Your task to perform on an android device: turn off airplane mode Image 0: 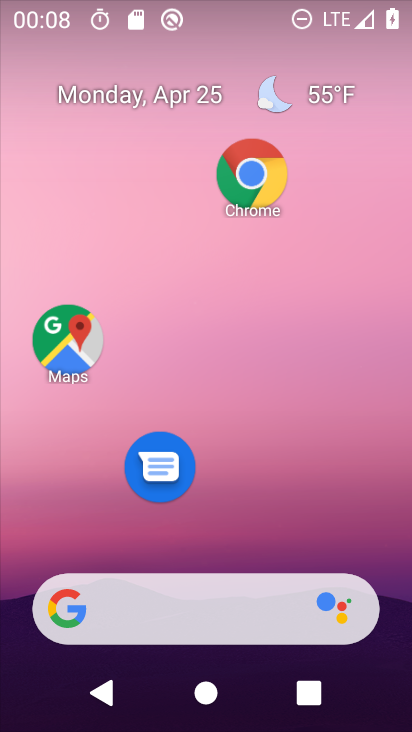
Step 0: drag from (266, 505) to (352, 108)
Your task to perform on an android device: turn off airplane mode Image 1: 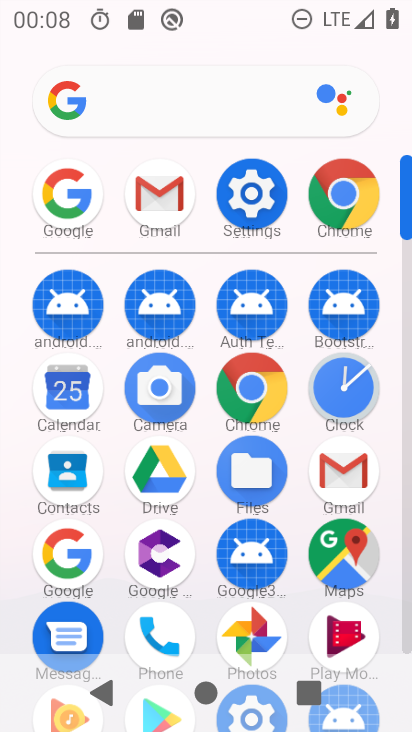
Step 1: click (262, 188)
Your task to perform on an android device: turn off airplane mode Image 2: 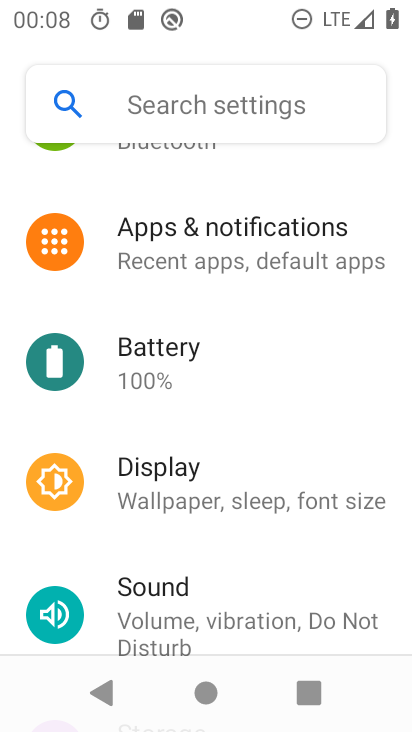
Step 2: drag from (258, 251) to (262, 550)
Your task to perform on an android device: turn off airplane mode Image 3: 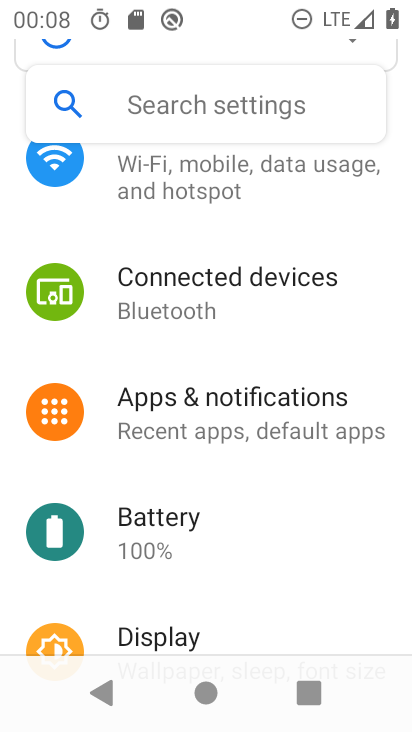
Step 3: click (157, 181)
Your task to perform on an android device: turn off airplane mode Image 4: 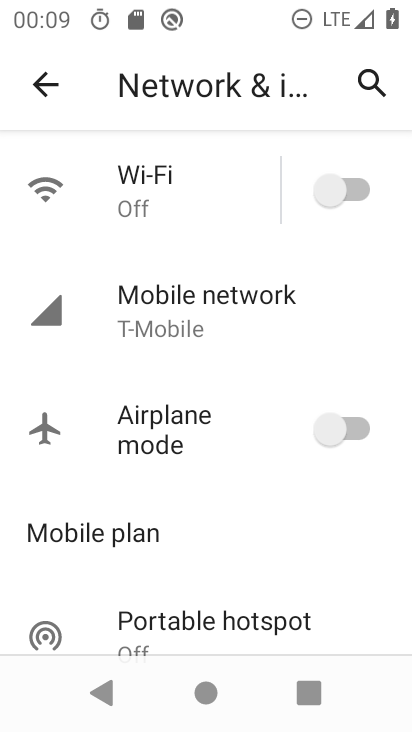
Step 4: task complete